Your task to perform on an android device: turn off translation in the chrome app Image 0: 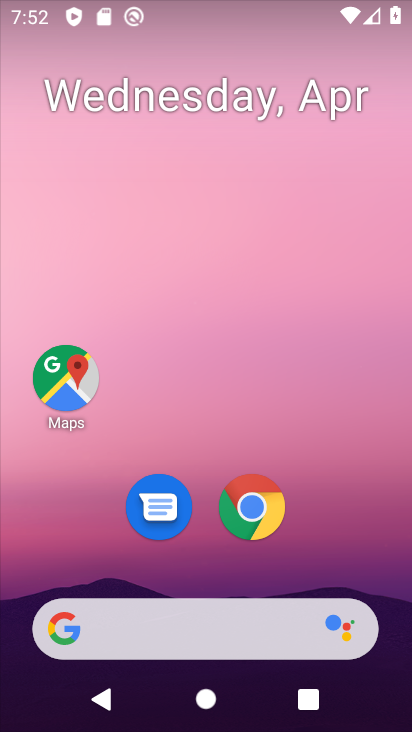
Step 0: drag from (341, 543) to (265, 46)
Your task to perform on an android device: turn off translation in the chrome app Image 1: 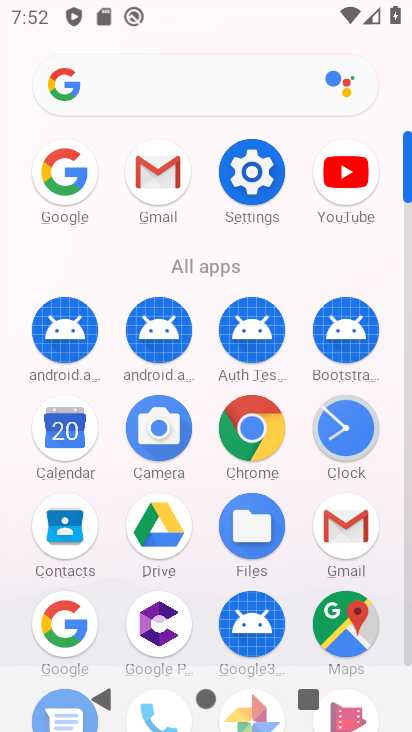
Step 1: click (245, 428)
Your task to perform on an android device: turn off translation in the chrome app Image 2: 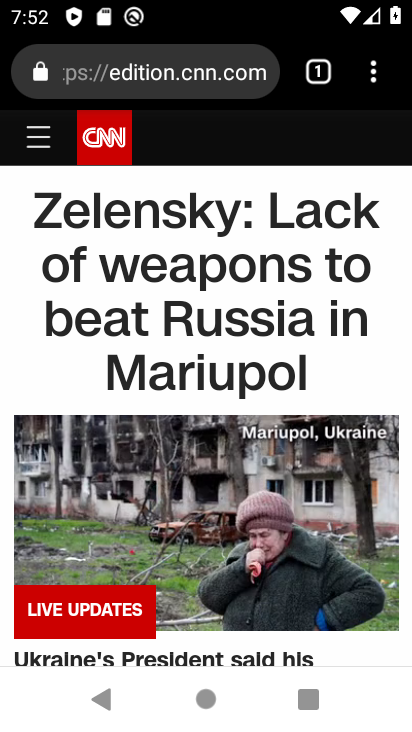
Step 2: drag from (372, 80) to (201, 501)
Your task to perform on an android device: turn off translation in the chrome app Image 3: 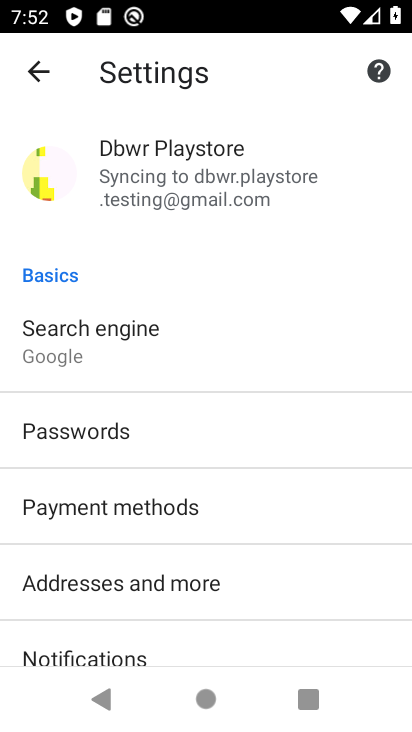
Step 3: drag from (312, 537) to (331, 213)
Your task to perform on an android device: turn off translation in the chrome app Image 4: 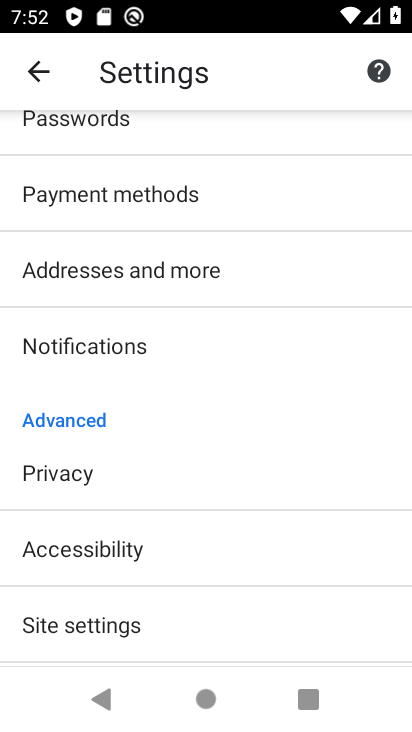
Step 4: drag from (264, 409) to (272, 170)
Your task to perform on an android device: turn off translation in the chrome app Image 5: 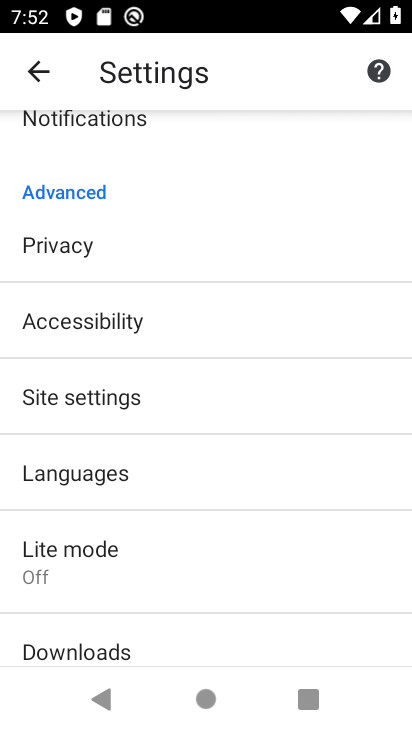
Step 5: click (123, 468)
Your task to perform on an android device: turn off translation in the chrome app Image 6: 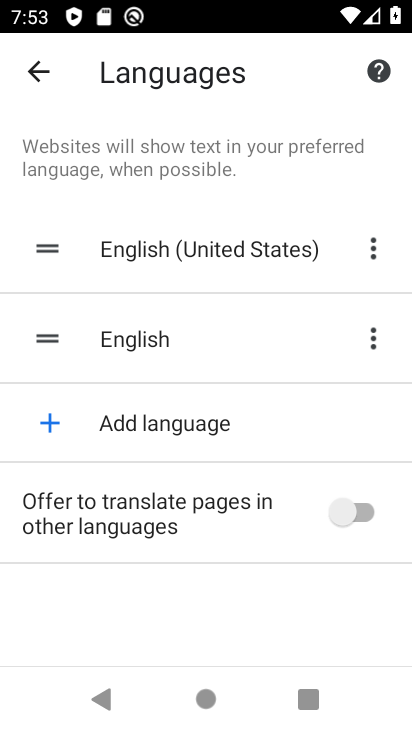
Step 6: task complete